Your task to perform on an android device: Show me recent news Image 0: 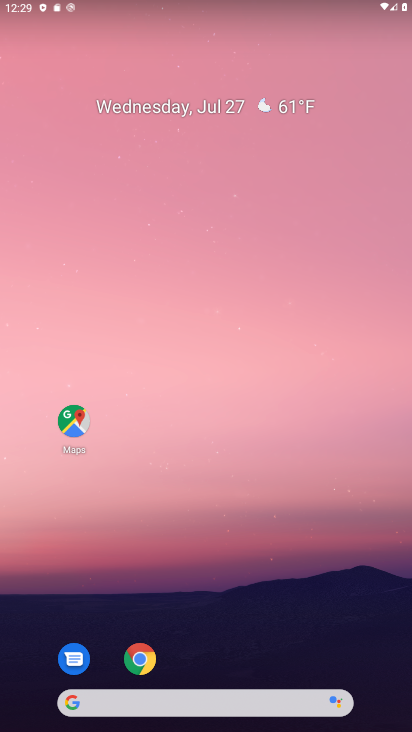
Step 0: drag from (218, 644) to (227, 205)
Your task to perform on an android device: Show me recent news Image 1: 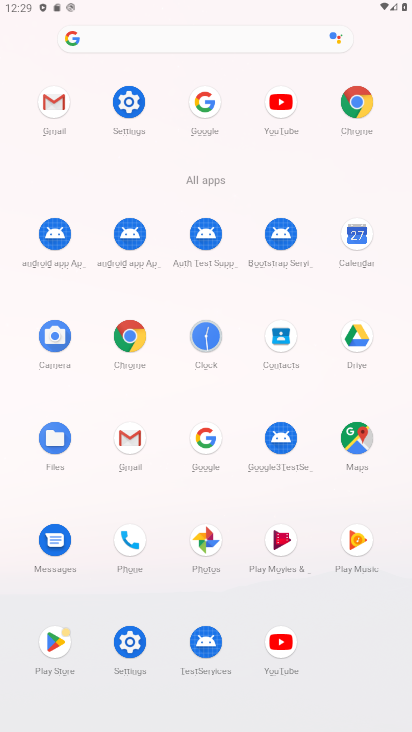
Step 1: click (192, 453)
Your task to perform on an android device: Show me recent news Image 2: 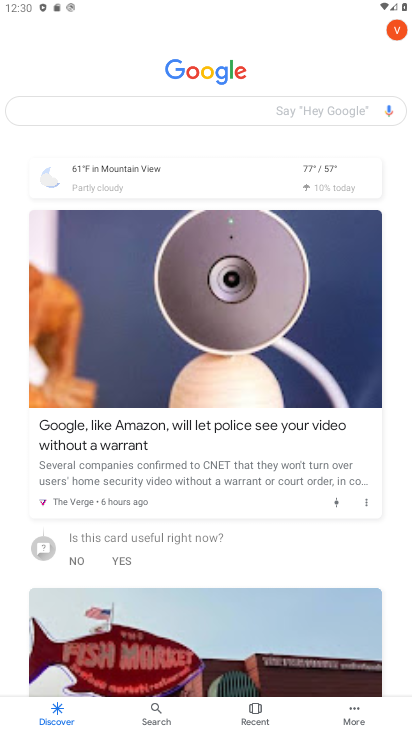
Step 2: click (158, 115)
Your task to perform on an android device: Show me recent news Image 3: 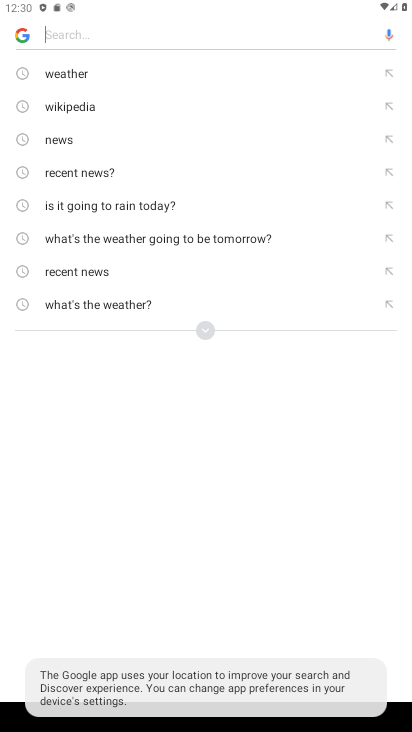
Step 3: click (66, 147)
Your task to perform on an android device: Show me recent news Image 4: 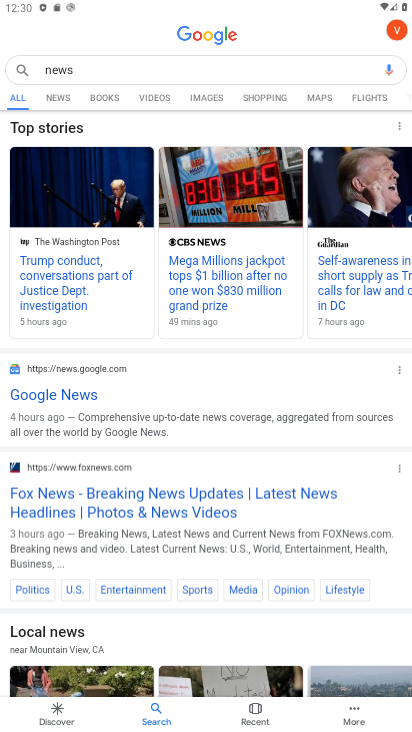
Step 4: click (61, 94)
Your task to perform on an android device: Show me recent news Image 5: 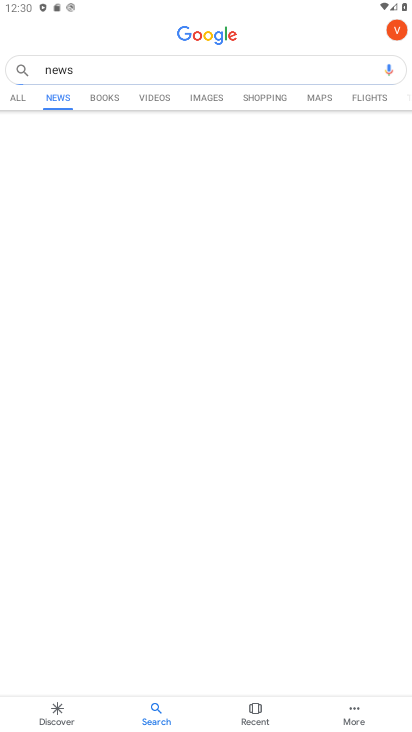
Step 5: task complete